Your task to perform on an android device: delete the emails in spam in the gmail app Image 0: 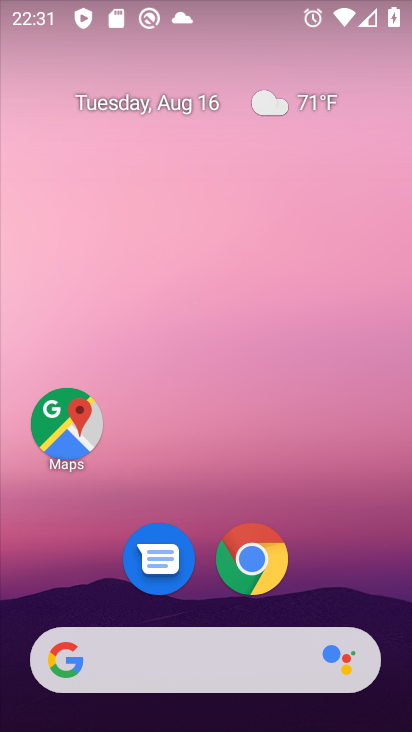
Step 0: drag from (195, 671) to (201, 147)
Your task to perform on an android device: delete the emails in spam in the gmail app Image 1: 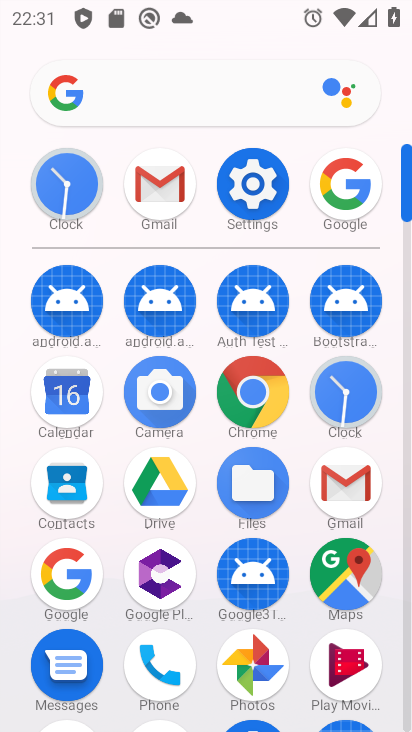
Step 1: click (158, 183)
Your task to perform on an android device: delete the emails in spam in the gmail app Image 2: 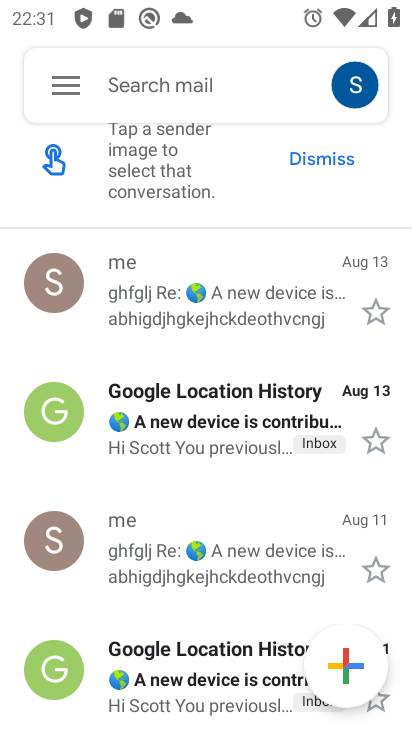
Step 2: click (68, 88)
Your task to perform on an android device: delete the emails in spam in the gmail app Image 3: 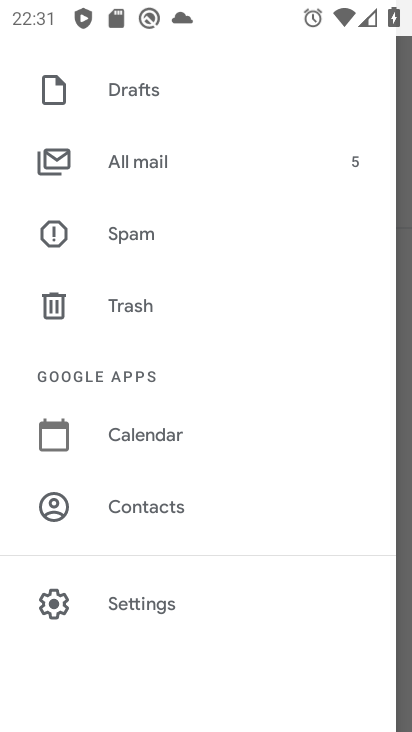
Step 3: click (129, 230)
Your task to perform on an android device: delete the emails in spam in the gmail app Image 4: 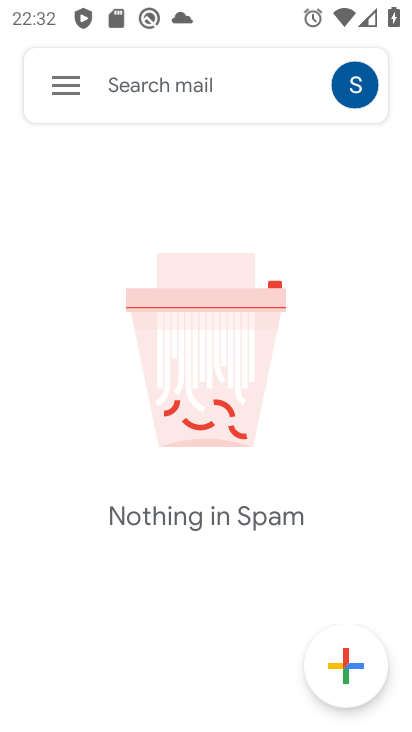
Step 4: task complete